Your task to perform on an android device: Open Youtube and go to the subscriptions tab Image 0: 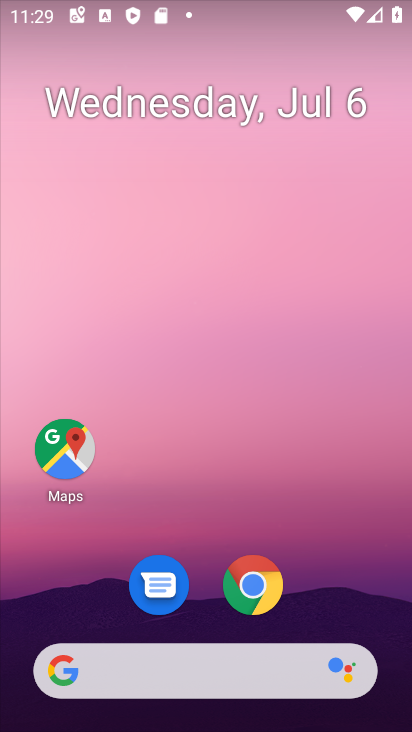
Step 0: drag from (248, 491) to (306, 24)
Your task to perform on an android device: Open Youtube and go to the subscriptions tab Image 1: 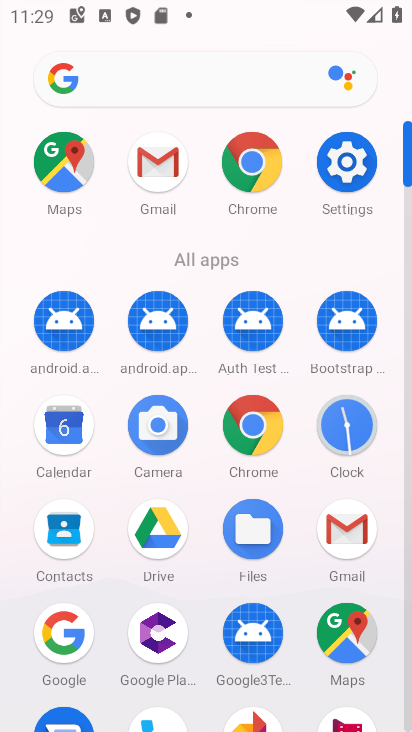
Step 1: drag from (200, 485) to (208, 82)
Your task to perform on an android device: Open Youtube and go to the subscriptions tab Image 2: 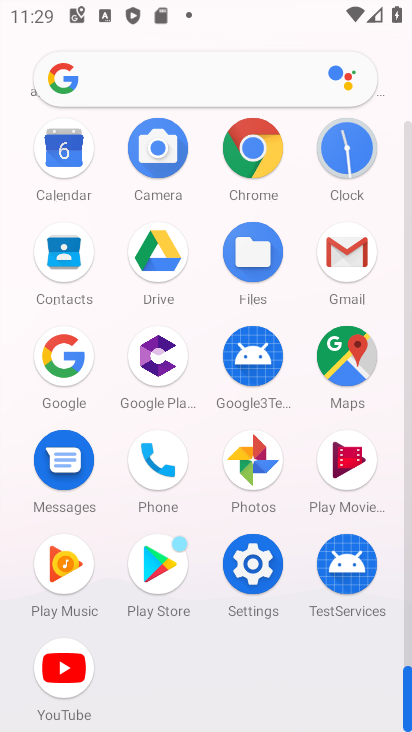
Step 2: click (67, 654)
Your task to perform on an android device: Open Youtube and go to the subscriptions tab Image 3: 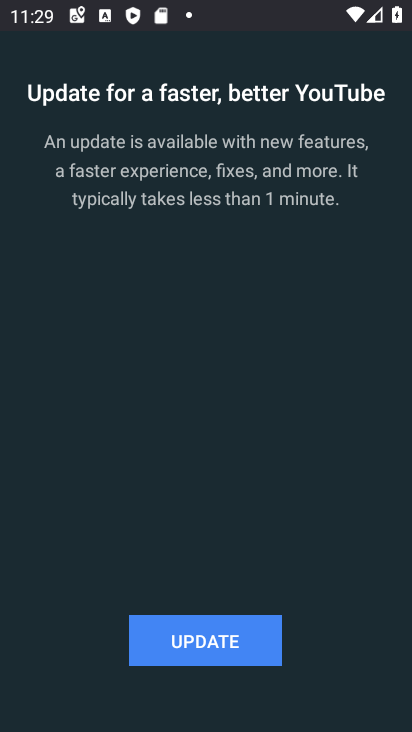
Step 3: click (179, 649)
Your task to perform on an android device: Open Youtube and go to the subscriptions tab Image 4: 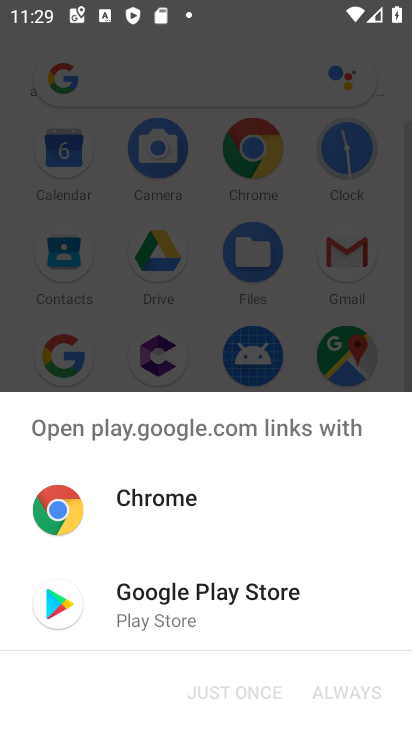
Step 4: click (184, 587)
Your task to perform on an android device: Open Youtube and go to the subscriptions tab Image 5: 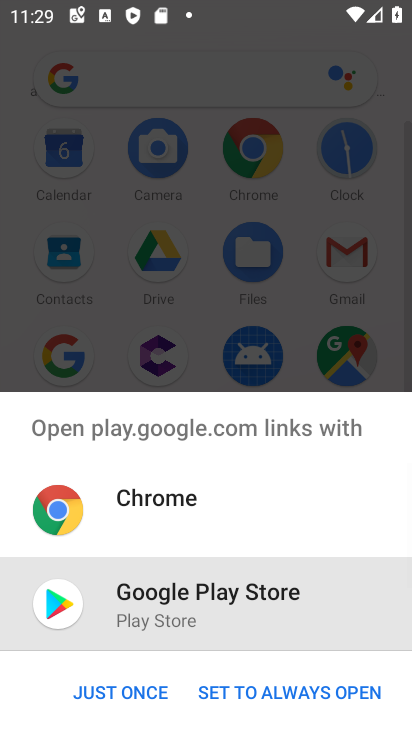
Step 5: click (118, 689)
Your task to perform on an android device: Open Youtube and go to the subscriptions tab Image 6: 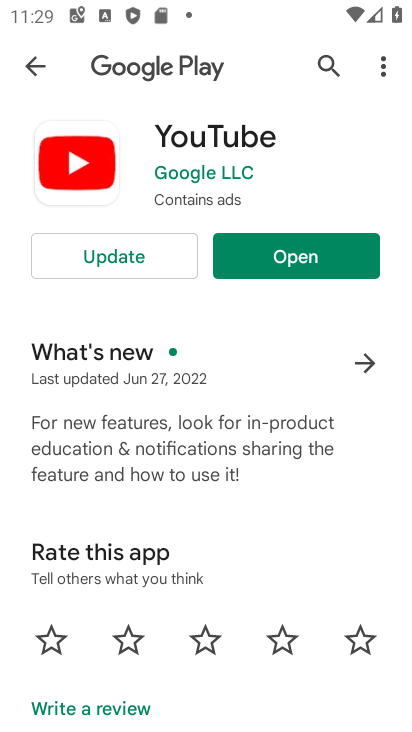
Step 6: click (164, 255)
Your task to perform on an android device: Open Youtube and go to the subscriptions tab Image 7: 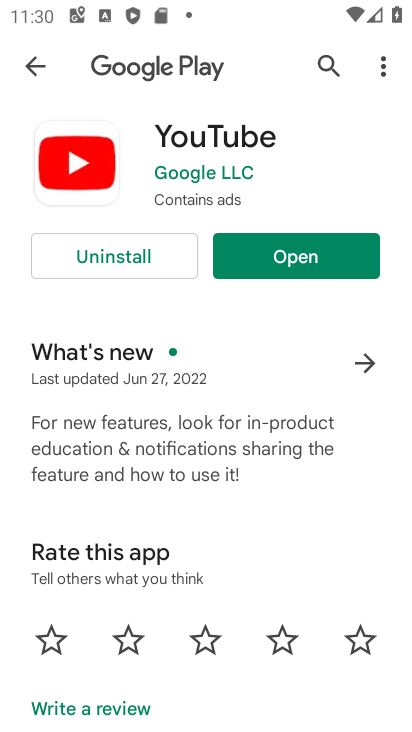
Step 7: click (255, 256)
Your task to perform on an android device: Open Youtube and go to the subscriptions tab Image 8: 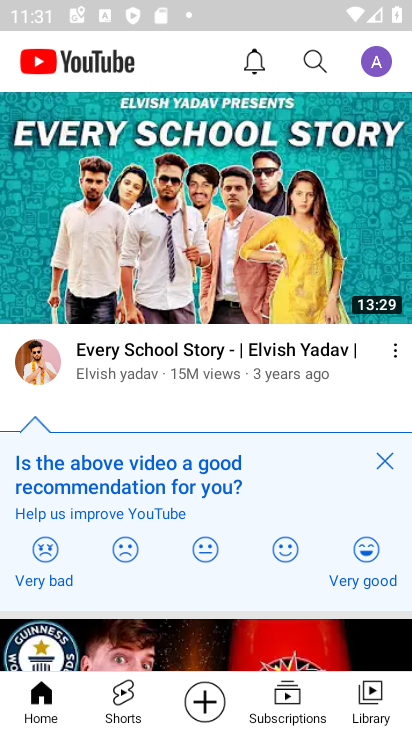
Step 8: click (290, 699)
Your task to perform on an android device: Open Youtube and go to the subscriptions tab Image 9: 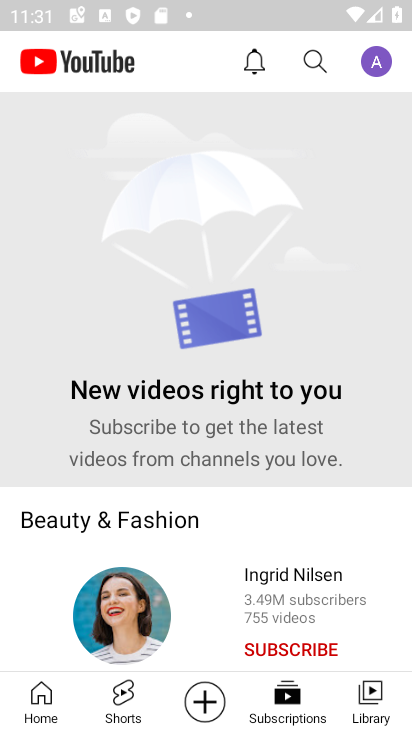
Step 9: task complete